Your task to perform on an android device: turn on priority inbox in the gmail app Image 0: 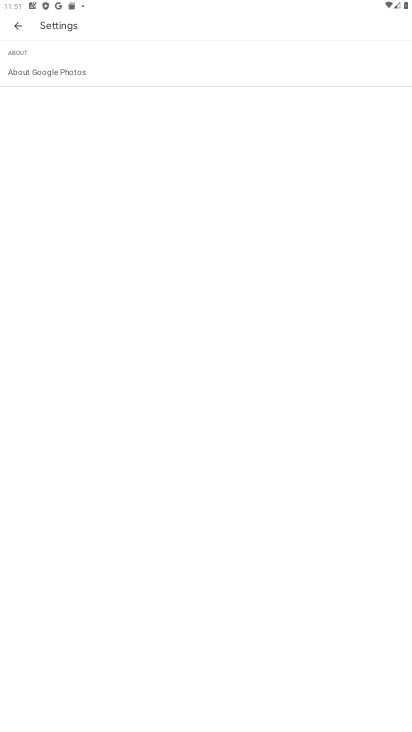
Step 0: press home button
Your task to perform on an android device: turn on priority inbox in the gmail app Image 1: 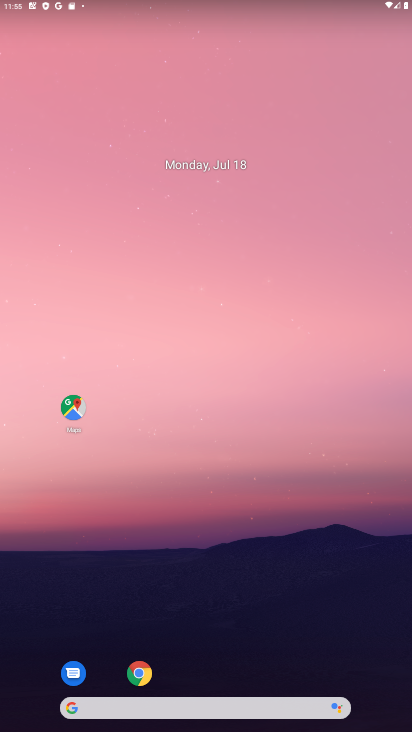
Step 1: drag from (173, 696) to (389, 146)
Your task to perform on an android device: turn on priority inbox in the gmail app Image 2: 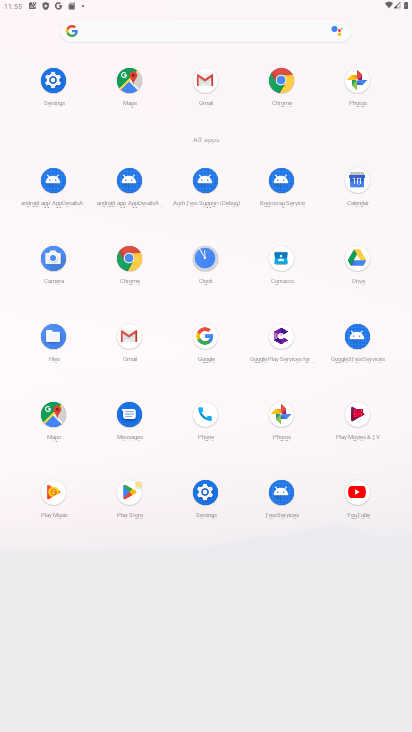
Step 2: click (210, 80)
Your task to perform on an android device: turn on priority inbox in the gmail app Image 3: 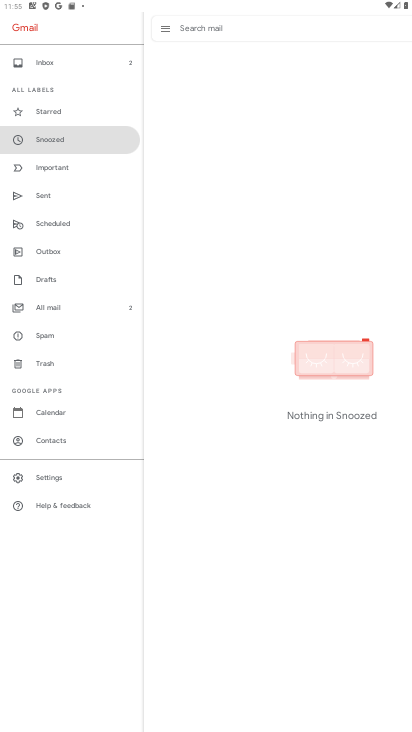
Step 3: click (60, 474)
Your task to perform on an android device: turn on priority inbox in the gmail app Image 4: 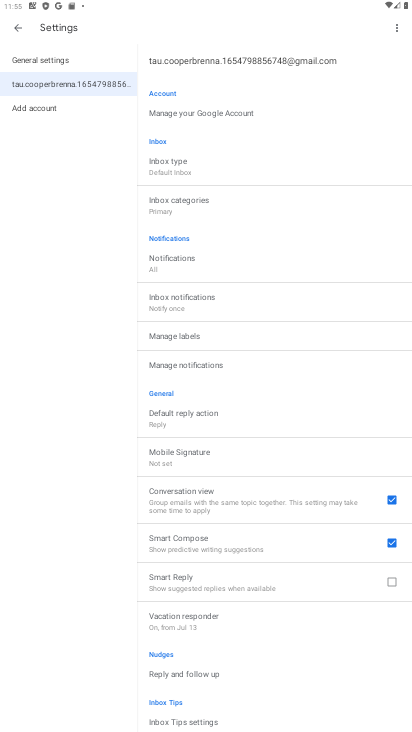
Step 4: click (180, 170)
Your task to perform on an android device: turn on priority inbox in the gmail app Image 5: 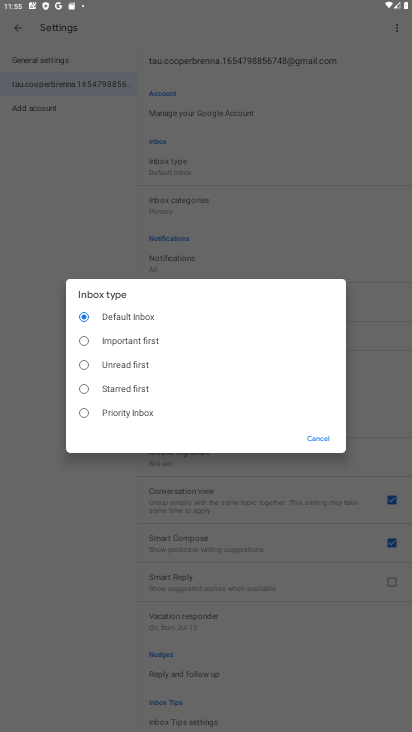
Step 5: click (147, 411)
Your task to perform on an android device: turn on priority inbox in the gmail app Image 6: 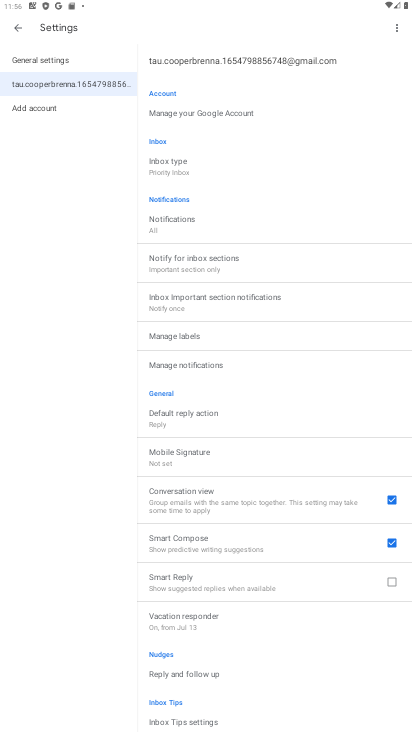
Step 6: task complete